Your task to perform on an android device: Search for the best coffee tables on Crate & Barrel Image 0: 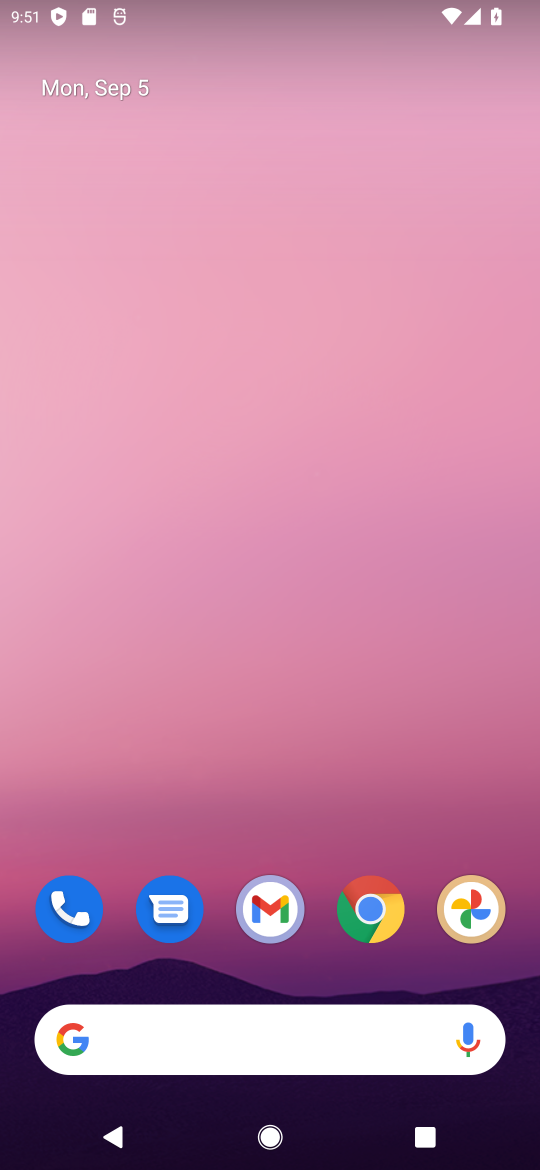
Step 0: click (261, 918)
Your task to perform on an android device: Search for the best coffee tables on Crate & Barrel Image 1: 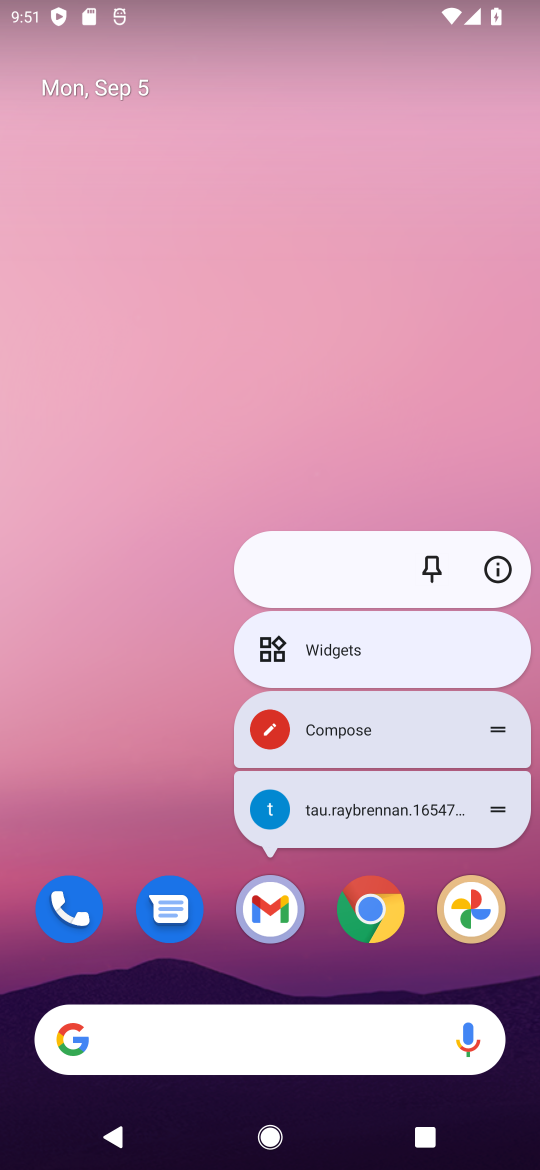
Step 1: task complete